Your task to perform on an android device: read, delete, or share a saved page in the chrome app Image 0: 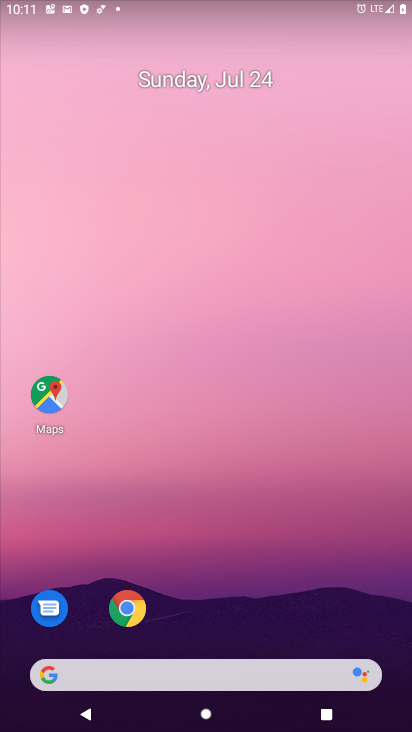
Step 0: click (124, 603)
Your task to perform on an android device: read, delete, or share a saved page in the chrome app Image 1: 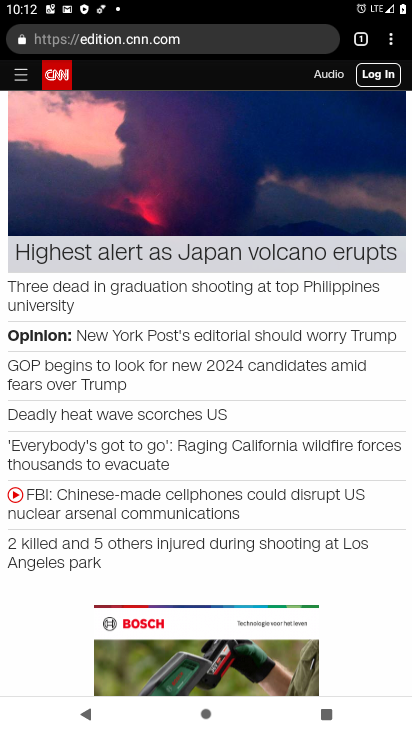
Step 1: click (387, 37)
Your task to perform on an android device: read, delete, or share a saved page in the chrome app Image 2: 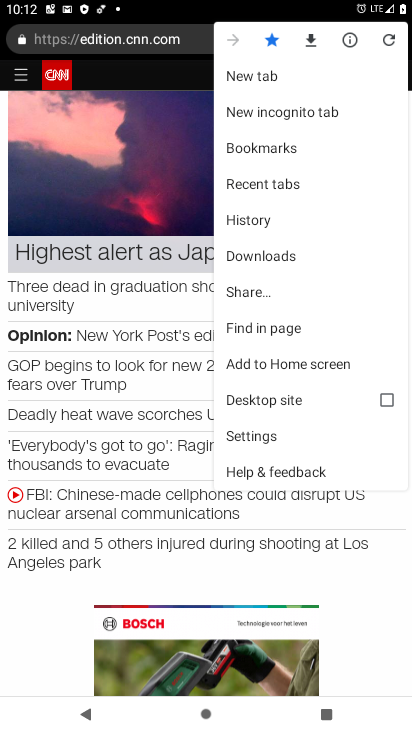
Step 2: click (306, 251)
Your task to perform on an android device: read, delete, or share a saved page in the chrome app Image 3: 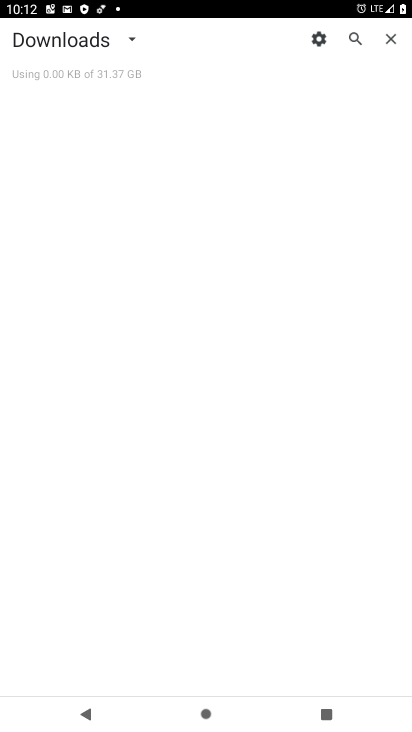
Step 3: task complete